Your task to perform on an android device: add a contact in the contacts app Image 0: 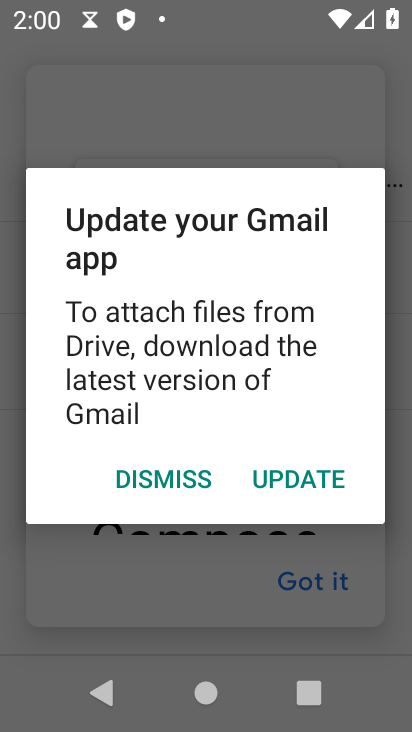
Step 0: press home button
Your task to perform on an android device: add a contact in the contacts app Image 1: 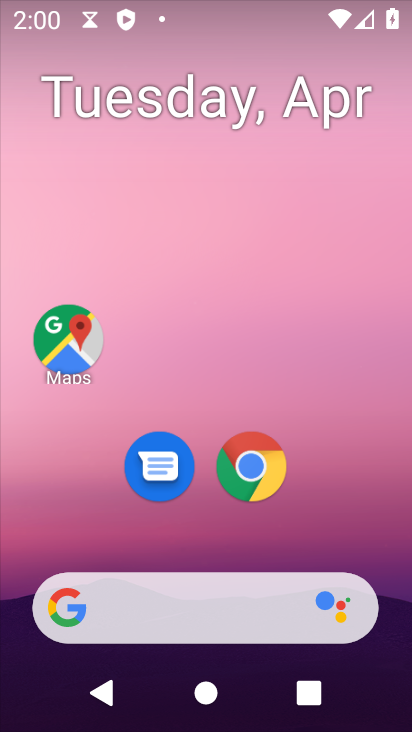
Step 1: drag from (347, 479) to (292, 3)
Your task to perform on an android device: add a contact in the contacts app Image 2: 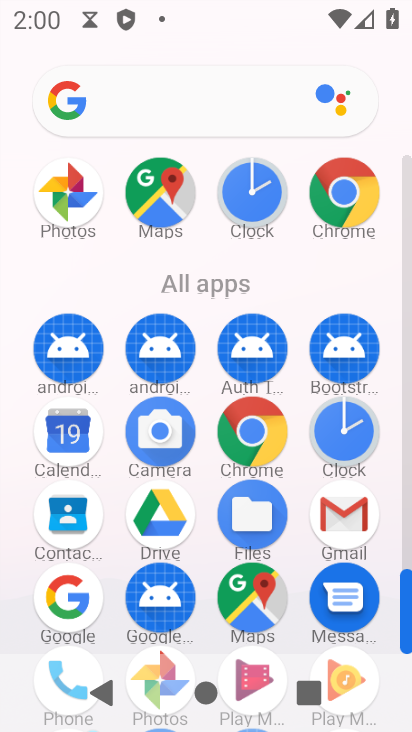
Step 2: drag from (0, 570) to (19, 244)
Your task to perform on an android device: add a contact in the contacts app Image 3: 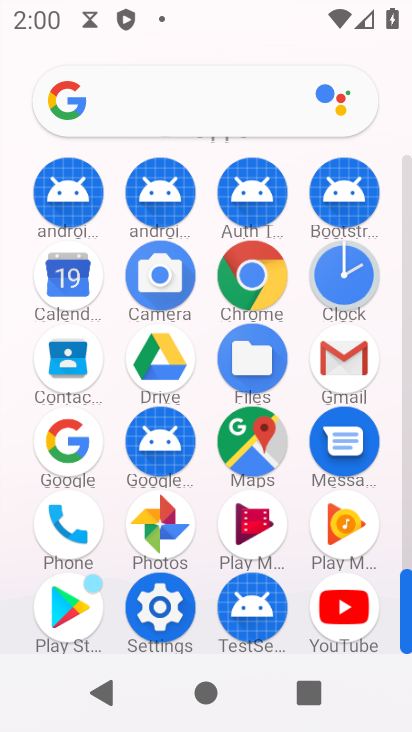
Step 3: click (52, 359)
Your task to perform on an android device: add a contact in the contacts app Image 4: 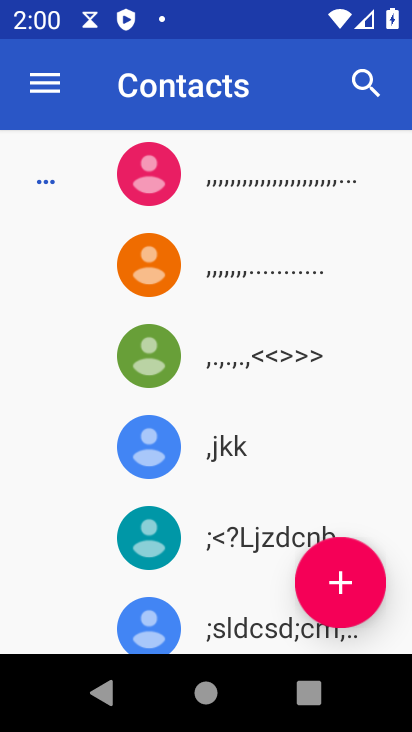
Step 4: click (348, 607)
Your task to perform on an android device: add a contact in the contacts app Image 5: 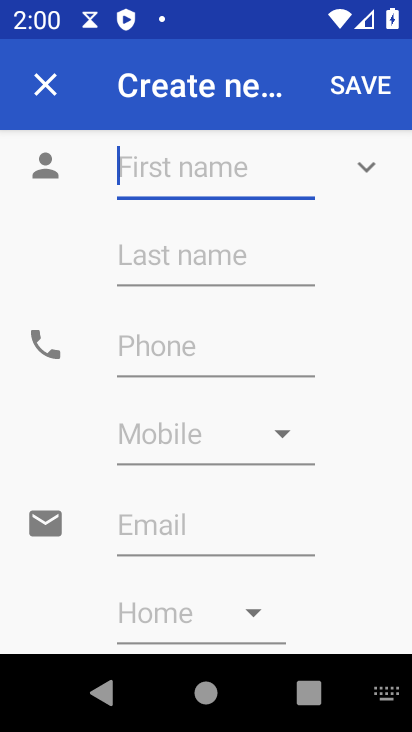
Step 5: type "Lkiuy"
Your task to perform on an android device: add a contact in the contacts app Image 6: 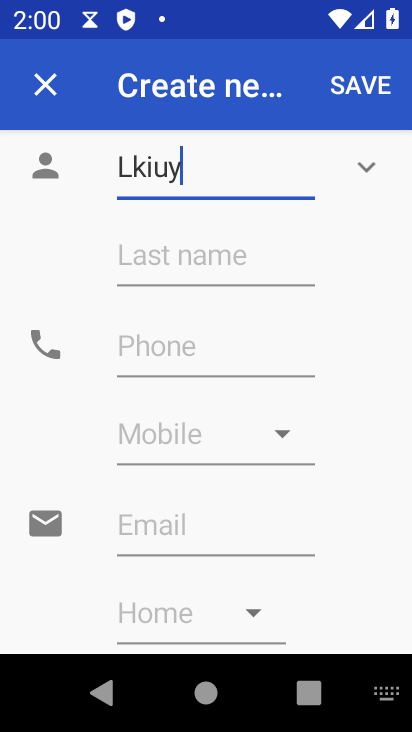
Step 6: type ""
Your task to perform on an android device: add a contact in the contacts app Image 7: 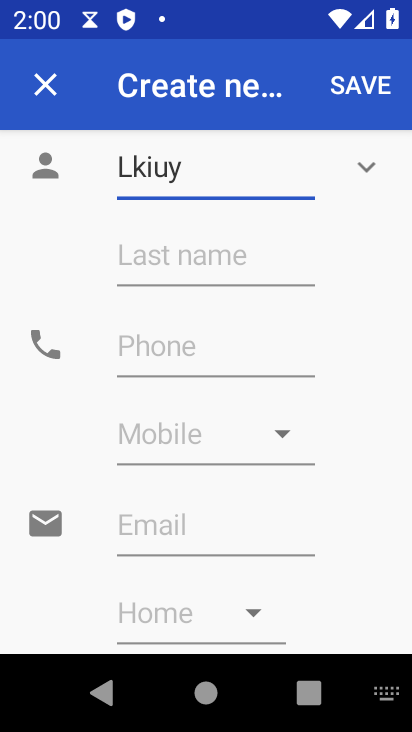
Step 7: click (197, 355)
Your task to perform on an android device: add a contact in the contacts app Image 8: 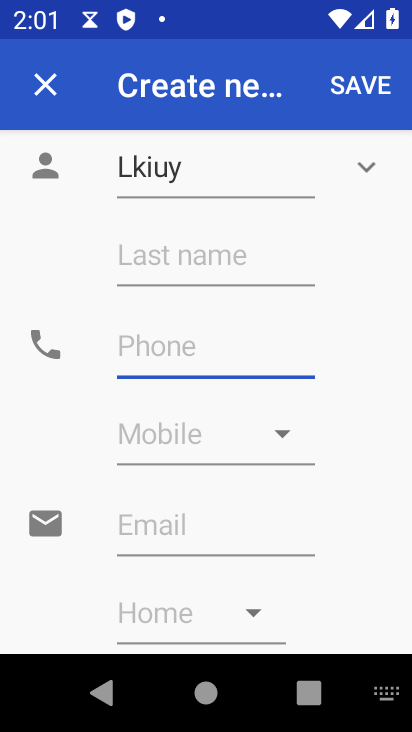
Step 8: type "09787664345790"
Your task to perform on an android device: add a contact in the contacts app Image 9: 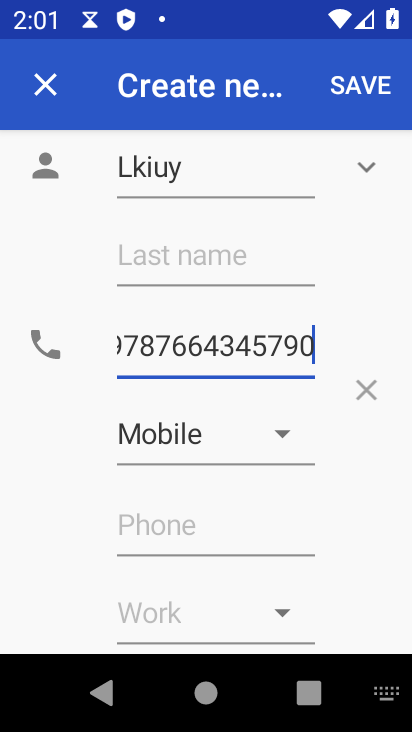
Step 9: click (345, 80)
Your task to perform on an android device: add a contact in the contacts app Image 10: 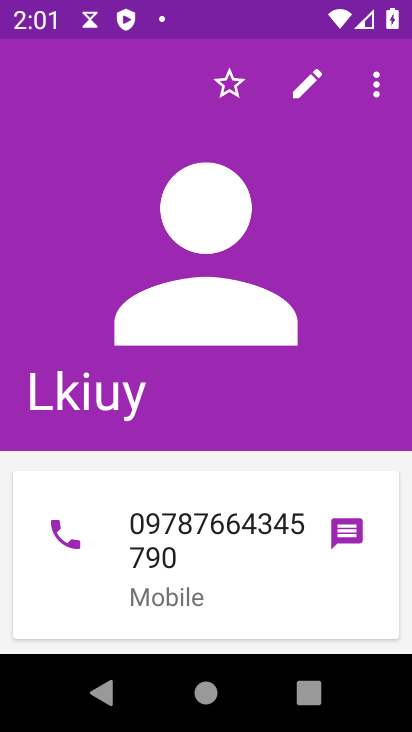
Step 10: task complete